Your task to perform on an android device: turn on location history Image 0: 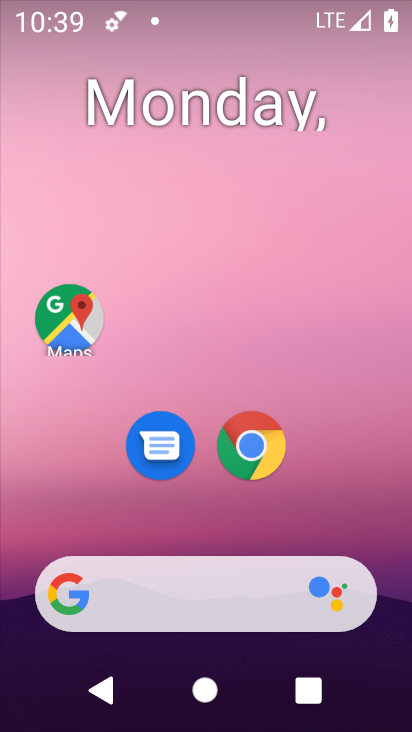
Step 0: drag from (207, 529) to (189, 251)
Your task to perform on an android device: turn on location history Image 1: 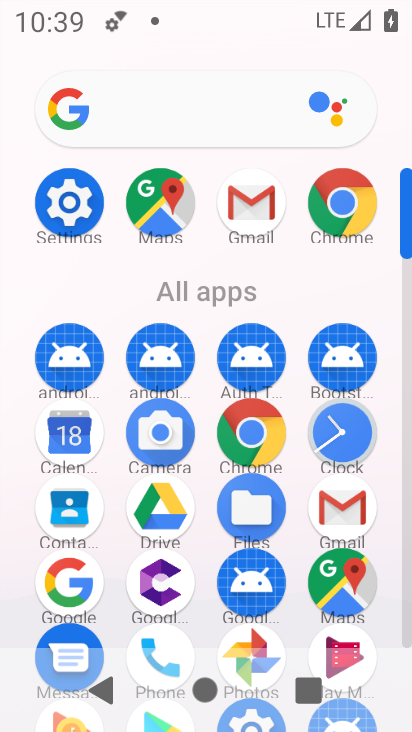
Step 1: click (71, 188)
Your task to perform on an android device: turn on location history Image 2: 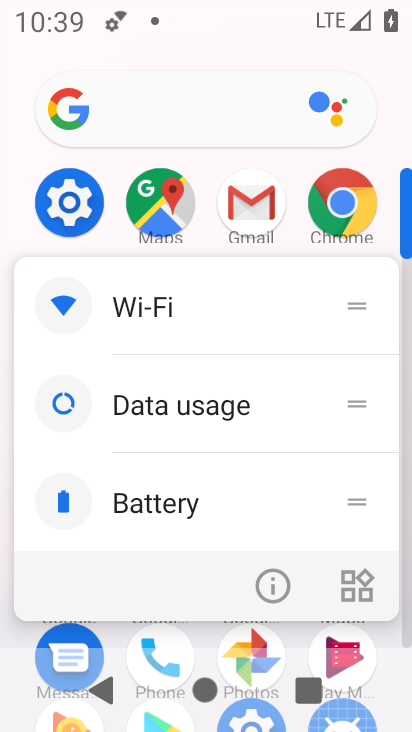
Step 2: click (77, 187)
Your task to perform on an android device: turn on location history Image 3: 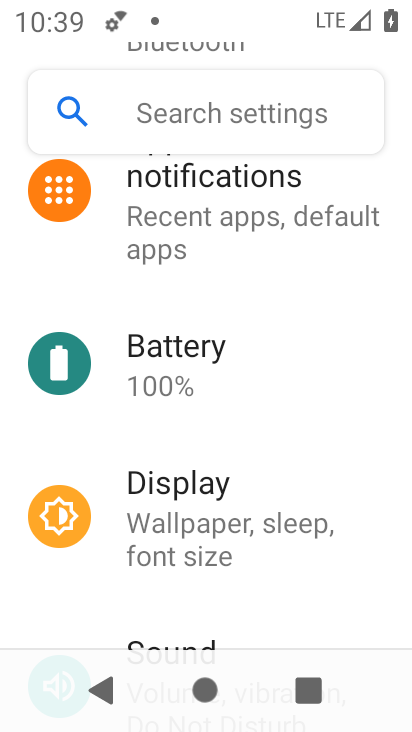
Step 3: drag from (185, 623) to (246, 209)
Your task to perform on an android device: turn on location history Image 4: 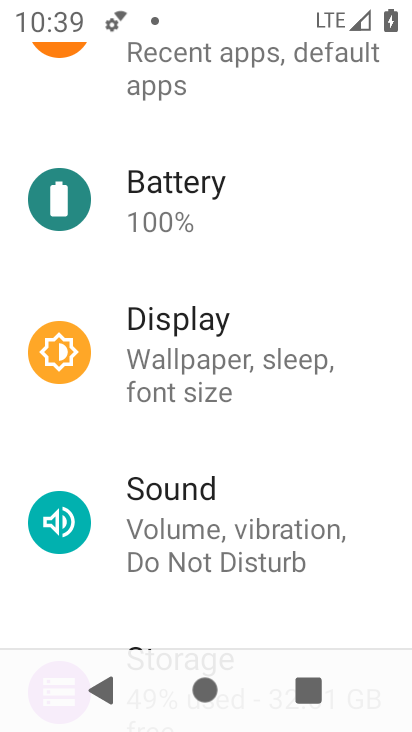
Step 4: drag from (190, 587) to (256, 249)
Your task to perform on an android device: turn on location history Image 5: 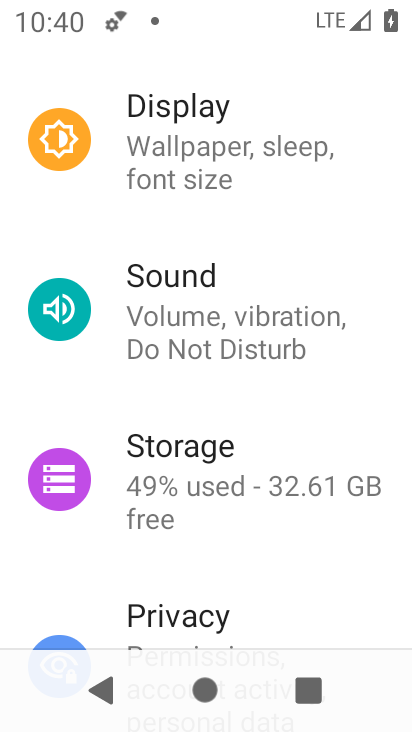
Step 5: drag from (121, 623) to (207, 203)
Your task to perform on an android device: turn on location history Image 6: 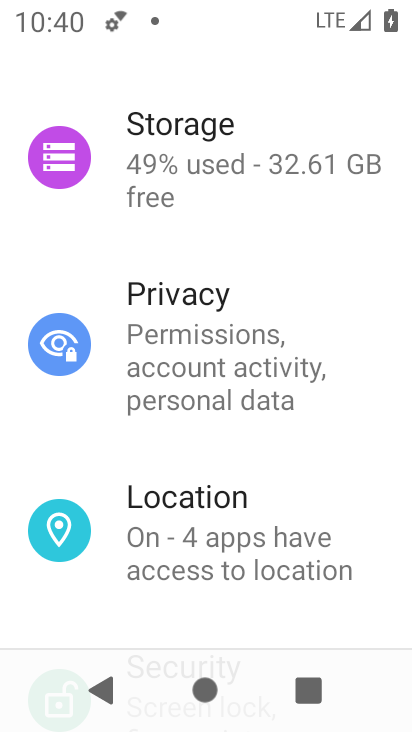
Step 6: click (220, 516)
Your task to perform on an android device: turn on location history Image 7: 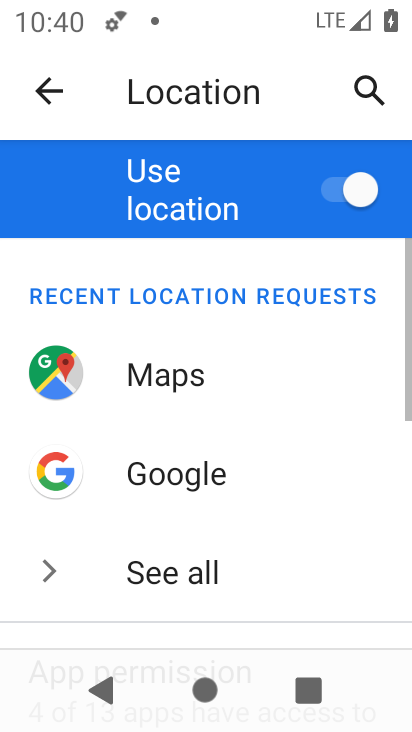
Step 7: drag from (255, 586) to (255, 195)
Your task to perform on an android device: turn on location history Image 8: 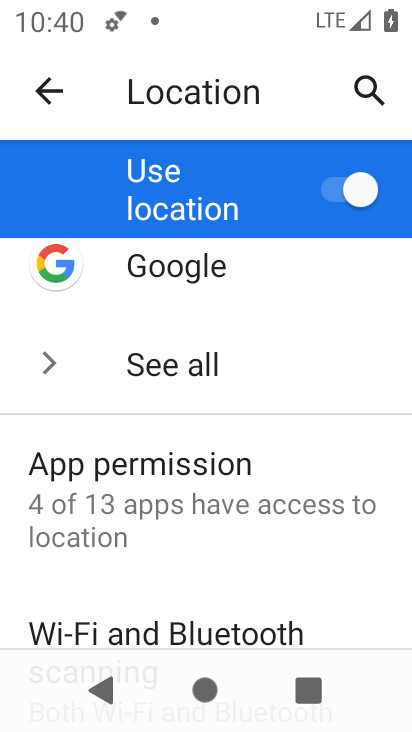
Step 8: drag from (169, 577) to (222, 311)
Your task to perform on an android device: turn on location history Image 9: 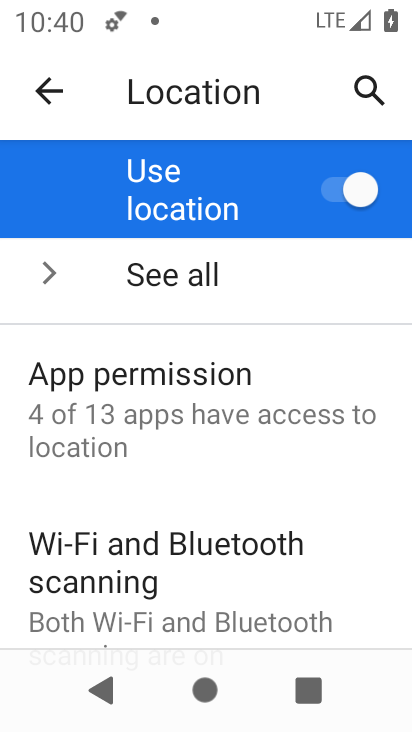
Step 9: drag from (175, 584) to (207, 306)
Your task to perform on an android device: turn on location history Image 10: 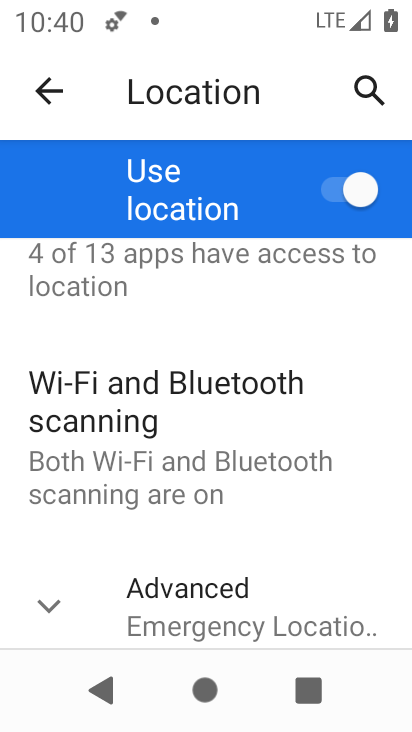
Step 10: click (52, 608)
Your task to perform on an android device: turn on location history Image 11: 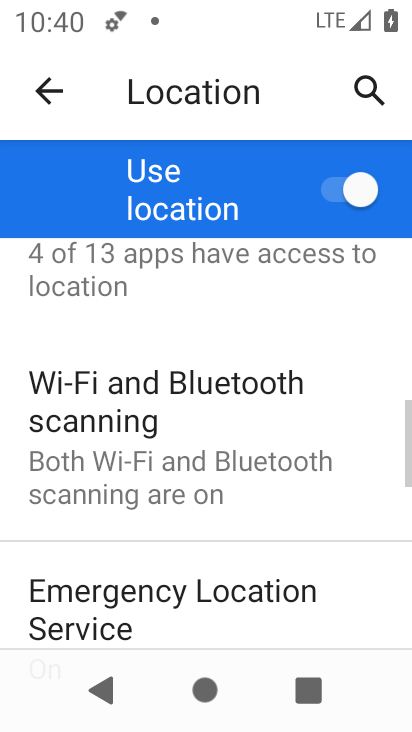
Step 11: drag from (160, 595) to (222, 430)
Your task to perform on an android device: turn on location history Image 12: 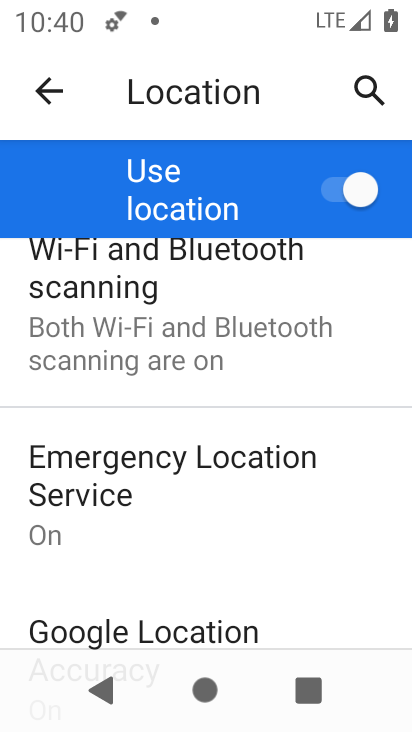
Step 12: drag from (201, 622) to (243, 382)
Your task to perform on an android device: turn on location history Image 13: 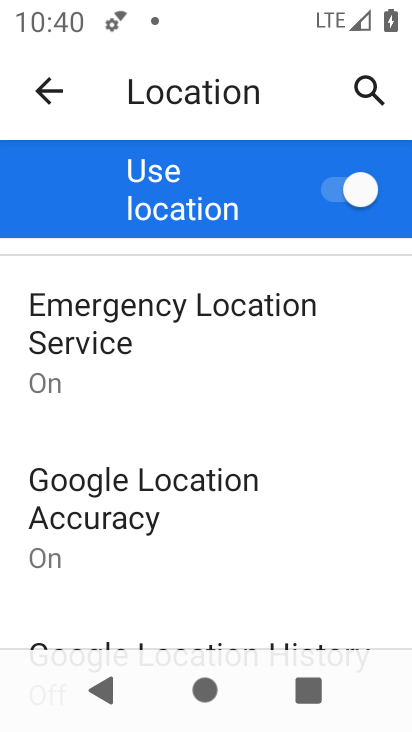
Step 13: drag from (116, 574) to (131, 354)
Your task to perform on an android device: turn on location history Image 14: 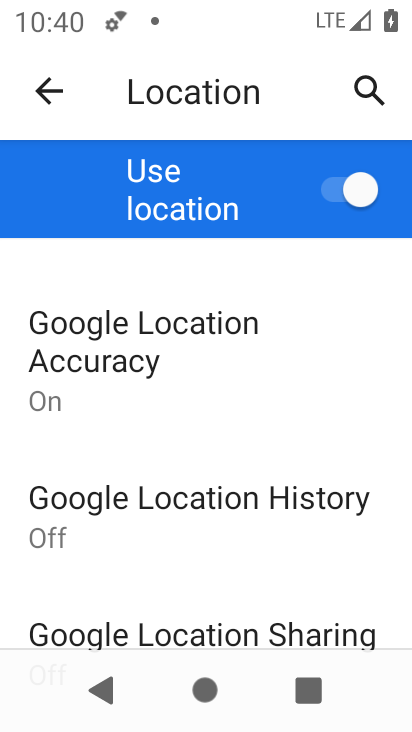
Step 14: click (100, 518)
Your task to perform on an android device: turn on location history Image 15: 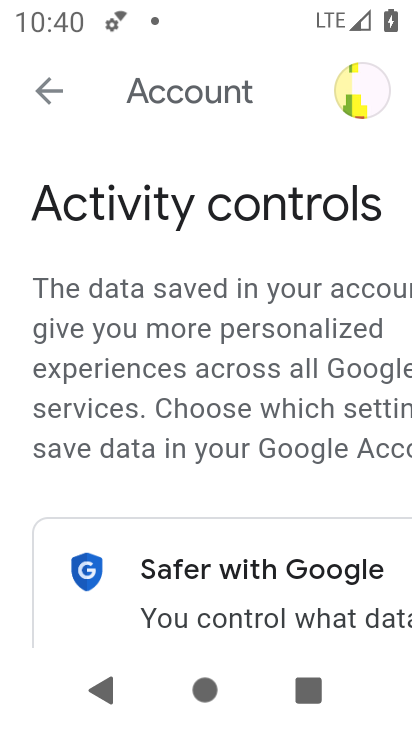
Step 15: drag from (330, 599) to (342, 246)
Your task to perform on an android device: turn on location history Image 16: 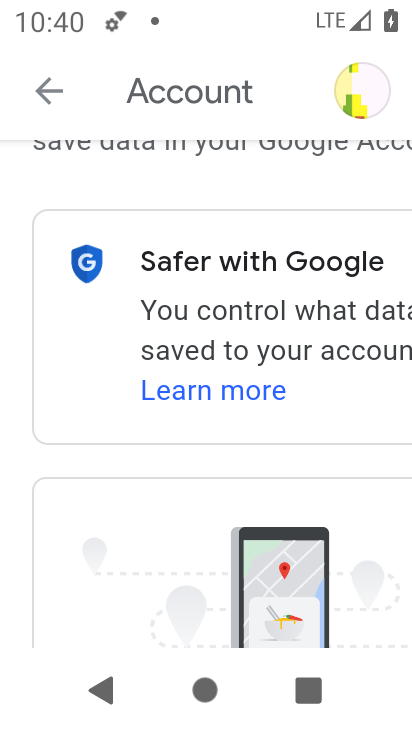
Step 16: drag from (239, 530) to (273, 227)
Your task to perform on an android device: turn on location history Image 17: 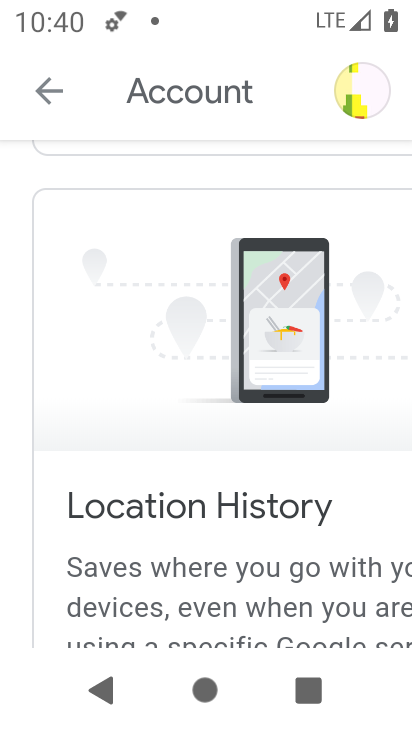
Step 17: drag from (211, 537) to (267, 219)
Your task to perform on an android device: turn on location history Image 18: 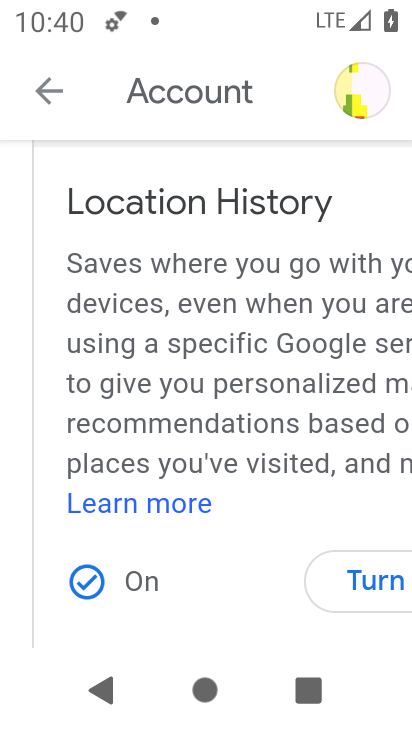
Step 18: click (371, 575)
Your task to perform on an android device: turn on location history Image 19: 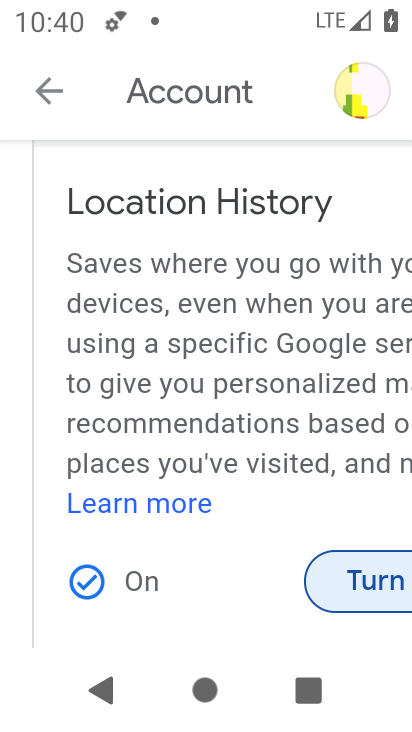
Step 19: click (371, 575)
Your task to perform on an android device: turn on location history Image 20: 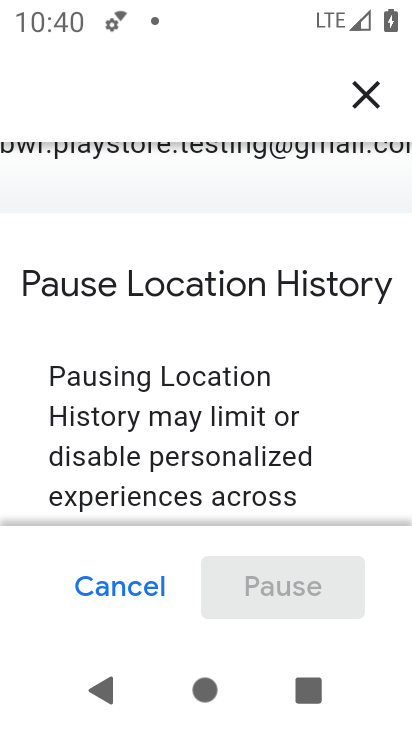
Step 20: drag from (216, 448) to (252, 258)
Your task to perform on an android device: turn on location history Image 21: 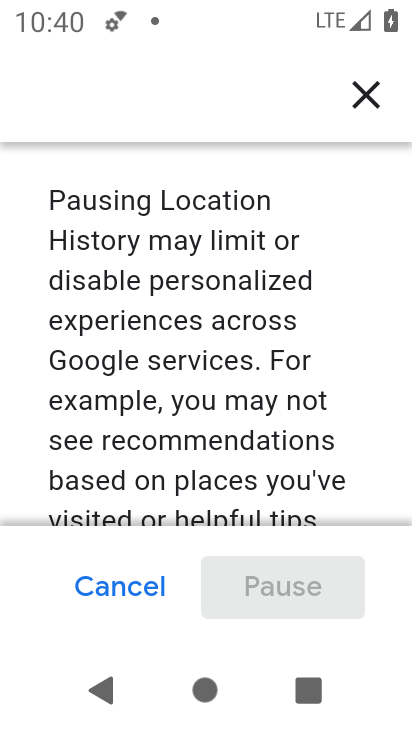
Step 21: drag from (225, 487) to (255, 207)
Your task to perform on an android device: turn on location history Image 22: 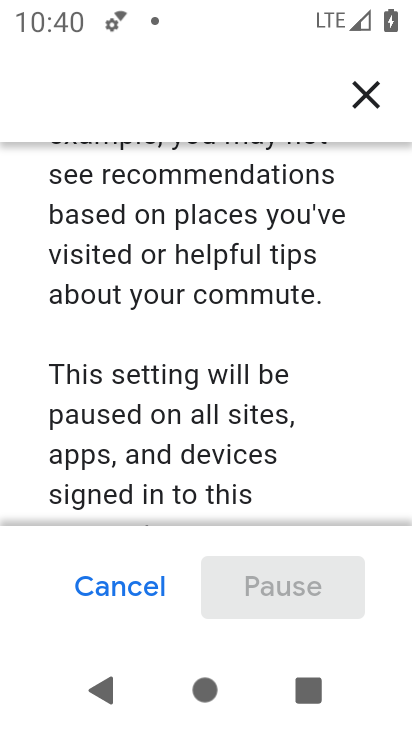
Step 22: drag from (192, 475) to (229, 145)
Your task to perform on an android device: turn on location history Image 23: 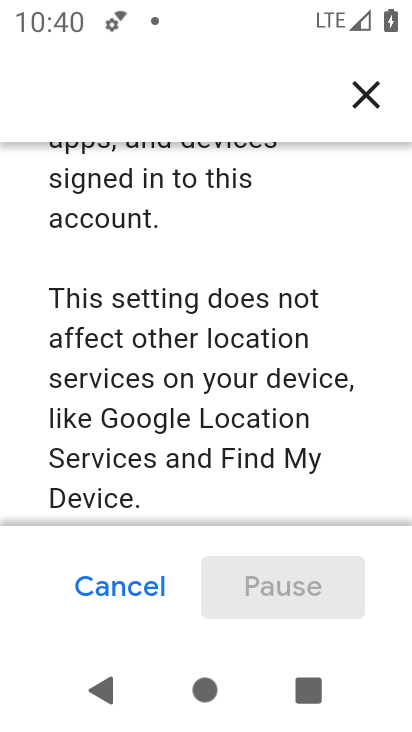
Step 23: drag from (74, 477) to (161, 187)
Your task to perform on an android device: turn on location history Image 24: 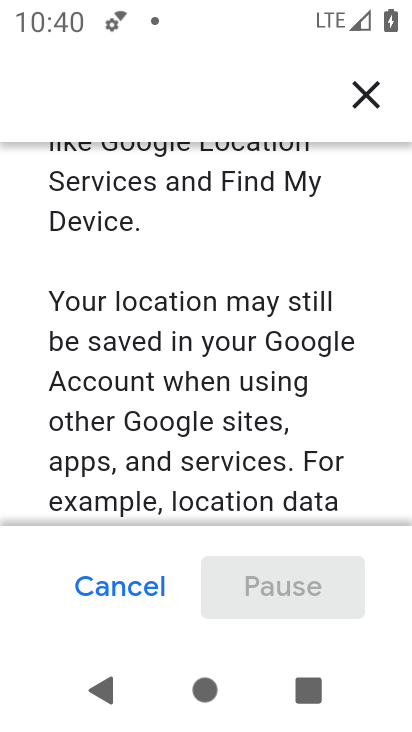
Step 24: drag from (176, 489) to (234, 213)
Your task to perform on an android device: turn on location history Image 25: 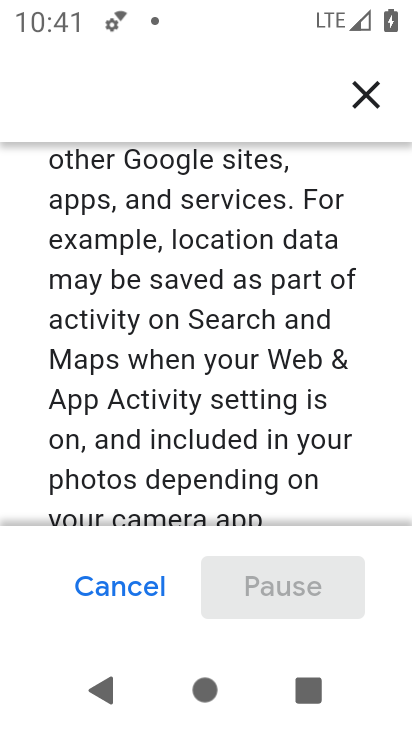
Step 25: drag from (162, 485) to (238, 171)
Your task to perform on an android device: turn on location history Image 26: 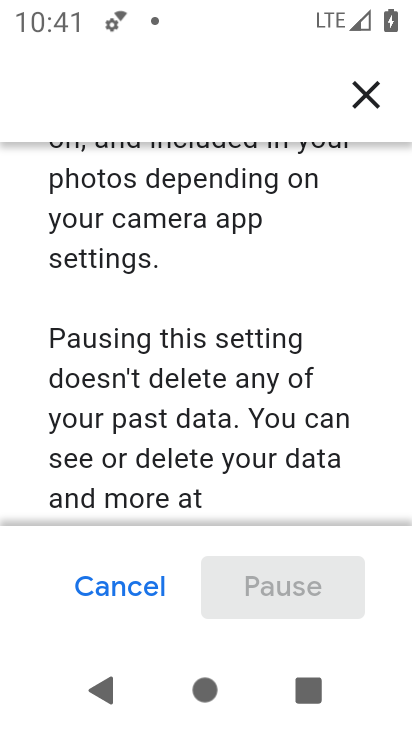
Step 26: drag from (180, 514) to (231, 350)
Your task to perform on an android device: turn on location history Image 27: 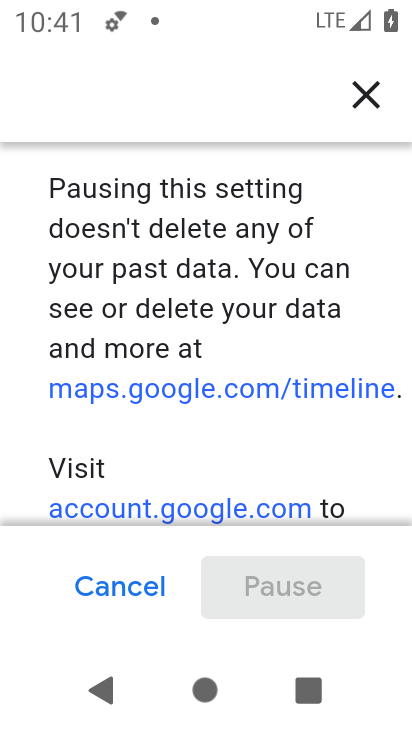
Step 27: drag from (146, 523) to (209, 373)
Your task to perform on an android device: turn on location history Image 28: 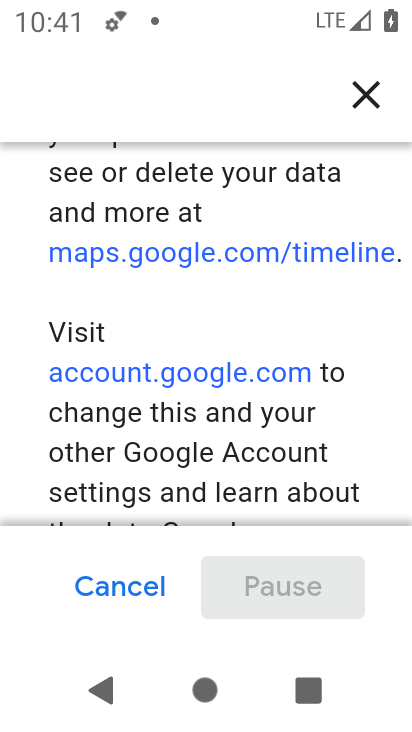
Step 28: drag from (269, 473) to (303, 166)
Your task to perform on an android device: turn on location history Image 29: 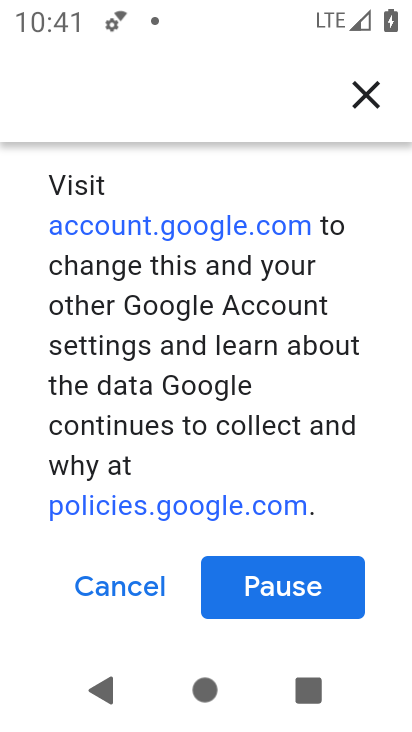
Step 29: click (297, 590)
Your task to perform on an android device: turn on location history Image 30: 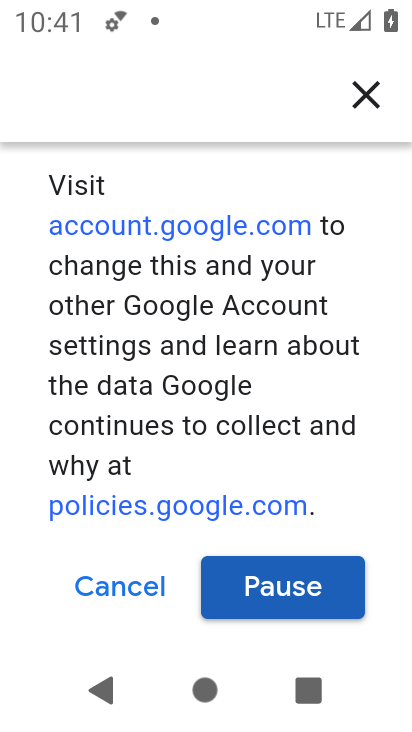
Step 30: click (292, 592)
Your task to perform on an android device: turn on location history Image 31: 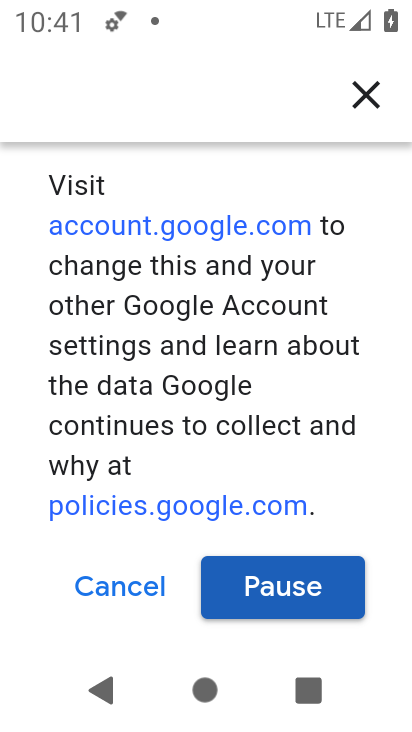
Step 31: click (289, 579)
Your task to perform on an android device: turn on location history Image 32: 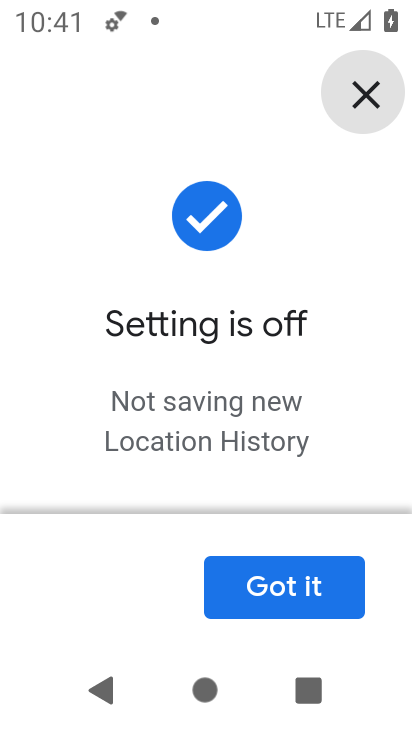
Step 32: click (273, 590)
Your task to perform on an android device: turn on location history Image 33: 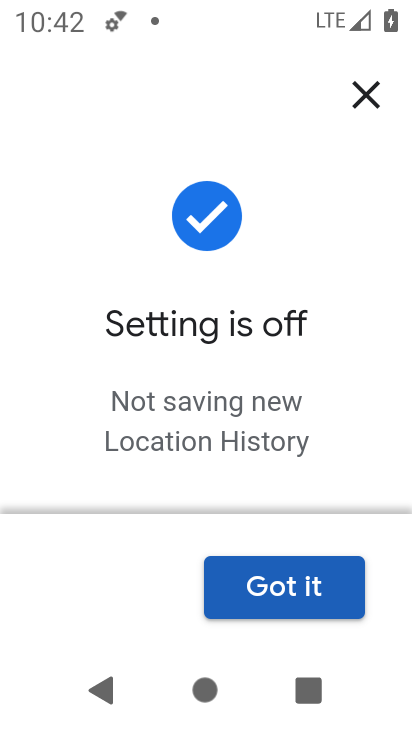
Step 33: click (301, 595)
Your task to perform on an android device: turn on location history Image 34: 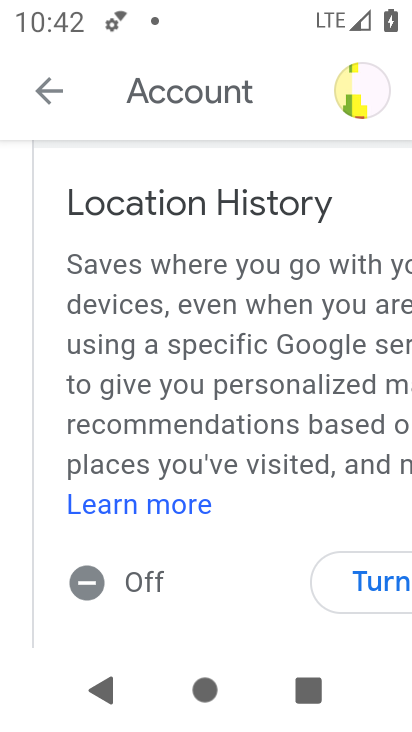
Step 34: task complete